Your task to perform on an android device: turn off airplane mode Image 0: 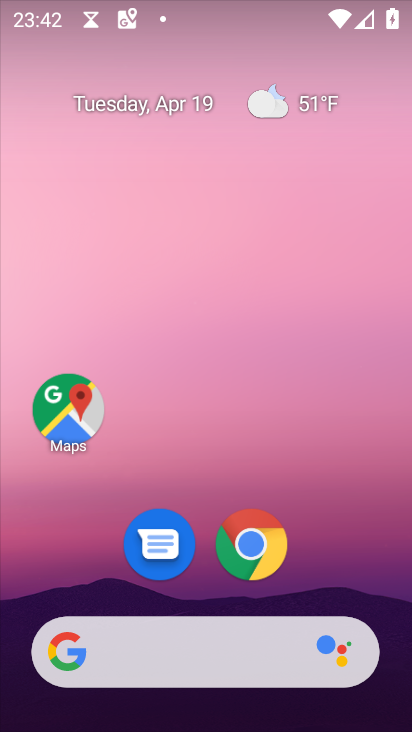
Step 0: drag from (354, 565) to (346, 80)
Your task to perform on an android device: turn off airplane mode Image 1: 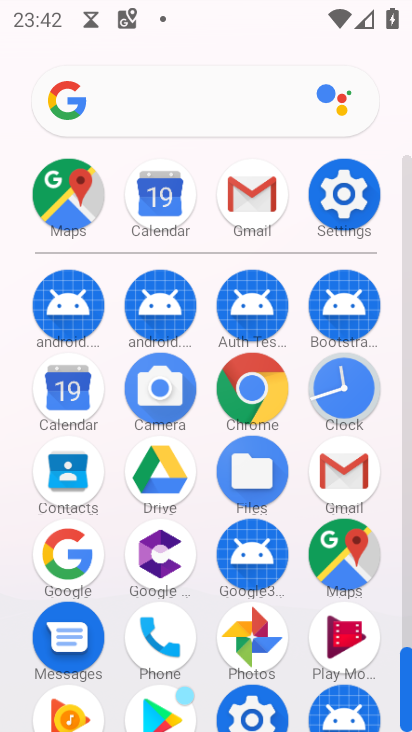
Step 1: click (340, 185)
Your task to perform on an android device: turn off airplane mode Image 2: 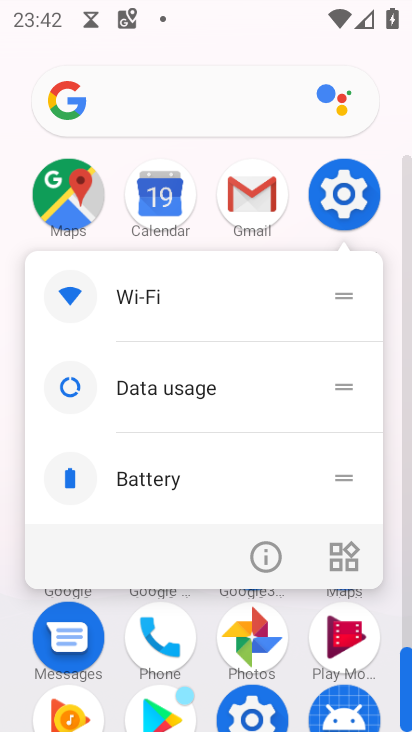
Step 2: click (340, 185)
Your task to perform on an android device: turn off airplane mode Image 3: 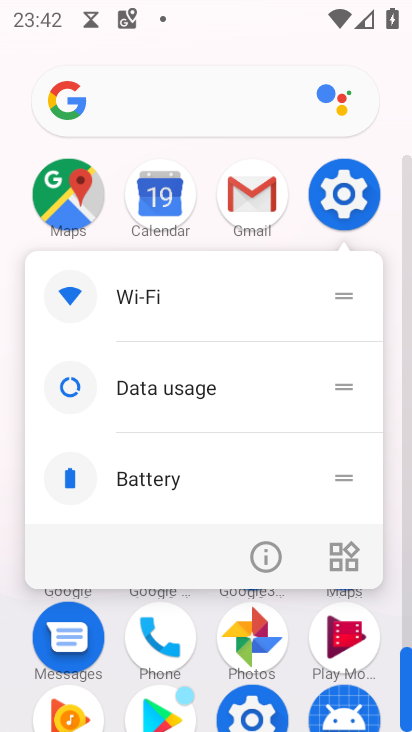
Step 3: click (340, 185)
Your task to perform on an android device: turn off airplane mode Image 4: 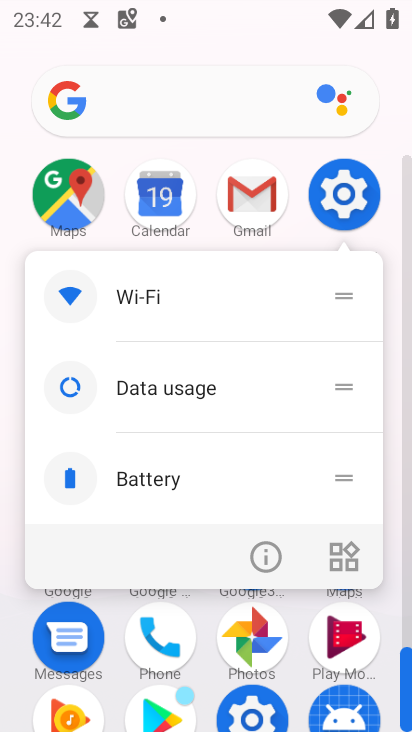
Step 4: click (340, 187)
Your task to perform on an android device: turn off airplane mode Image 5: 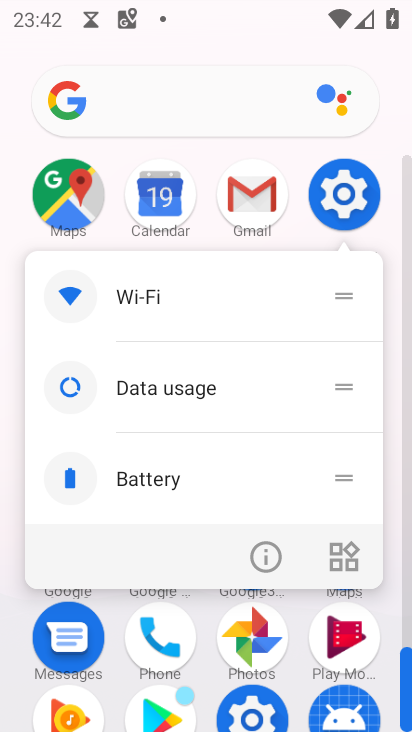
Step 5: click (334, 208)
Your task to perform on an android device: turn off airplane mode Image 6: 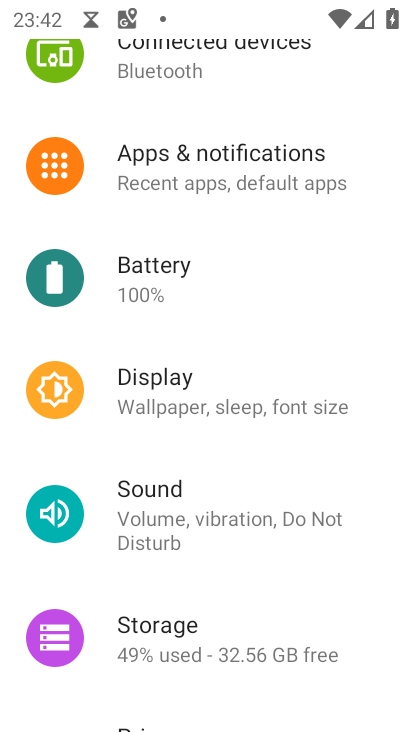
Step 6: drag from (204, 258) to (234, 354)
Your task to perform on an android device: turn off airplane mode Image 7: 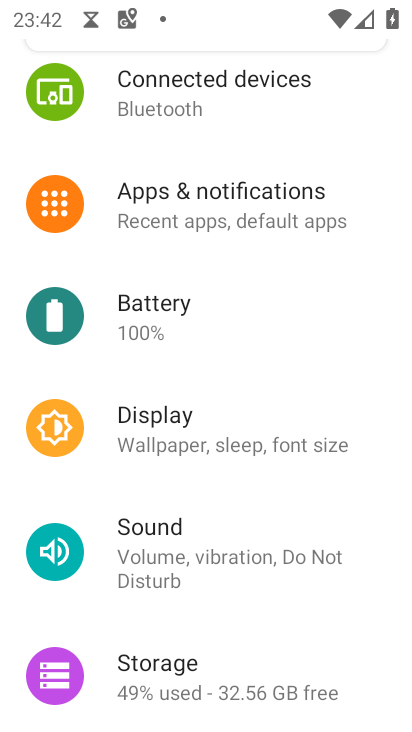
Step 7: drag from (224, 292) to (265, 375)
Your task to perform on an android device: turn off airplane mode Image 8: 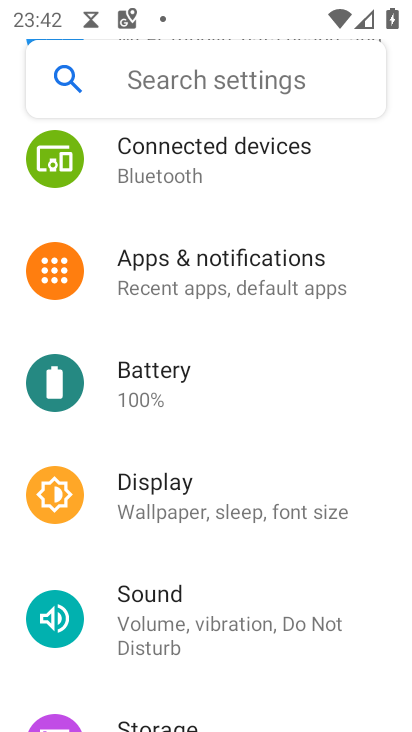
Step 8: drag from (252, 318) to (290, 395)
Your task to perform on an android device: turn off airplane mode Image 9: 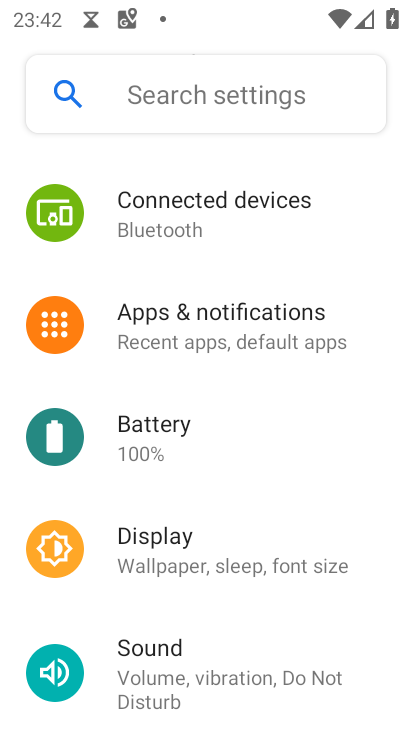
Step 9: drag from (256, 316) to (275, 376)
Your task to perform on an android device: turn off airplane mode Image 10: 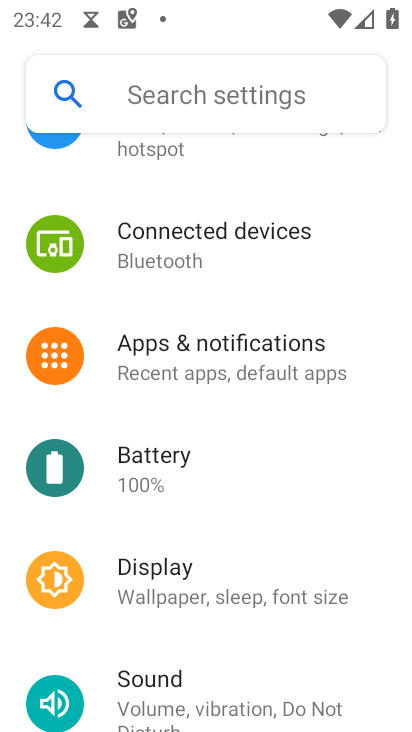
Step 10: drag from (242, 317) to (256, 369)
Your task to perform on an android device: turn off airplane mode Image 11: 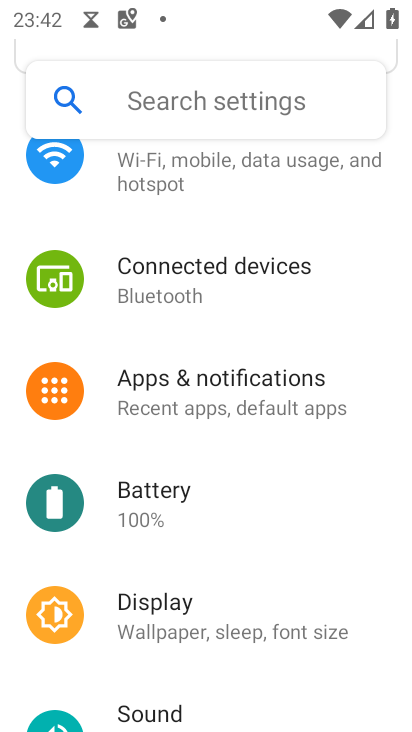
Step 11: drag from (242, 330) to (266, 397)
Your task to perform on an android device: turn off airplane mode Image 12: 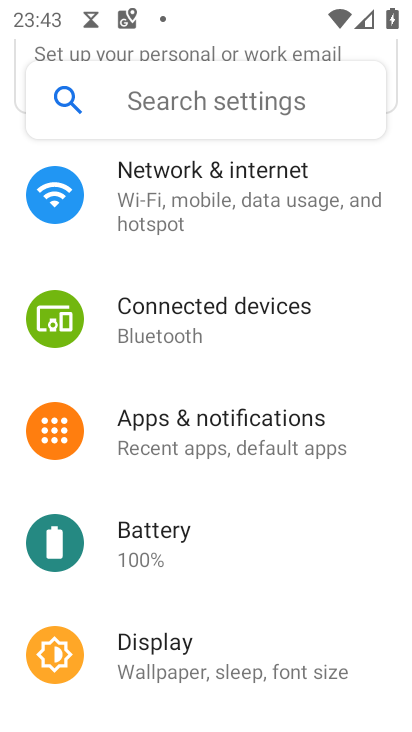
Step 12: click (216, 228)
Your task to perform on an android device: turn off airplane mode Image 13: 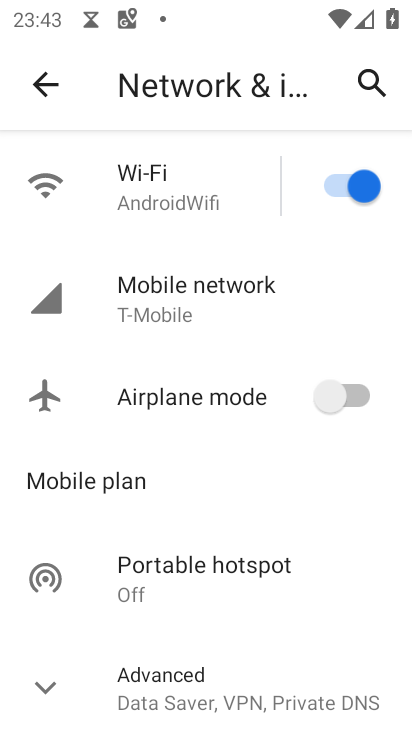
Step 13: task complete